Your task to perform on an android device: turn off sleep mode Image 0: 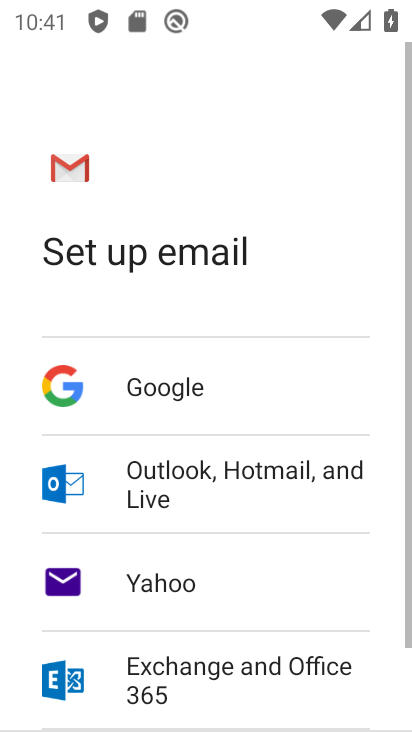
Step 0: press home button
Your task to perform on an android device: turn off sleep mode Image 1: 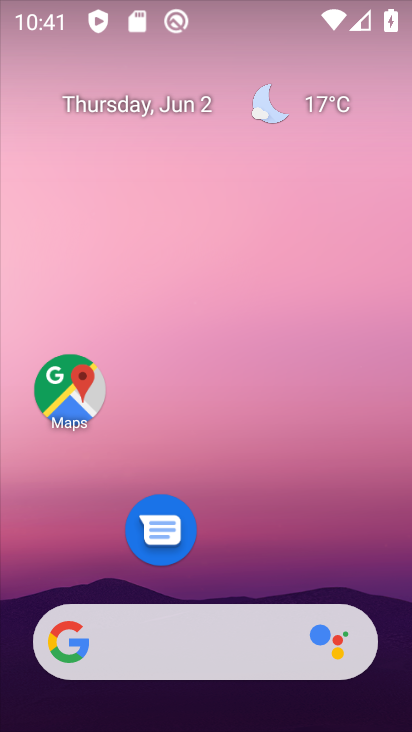
Step 1: drag from (210, 685) to (153, 175)
Your task to perform on an android device: turn off sleep mode Image 2: 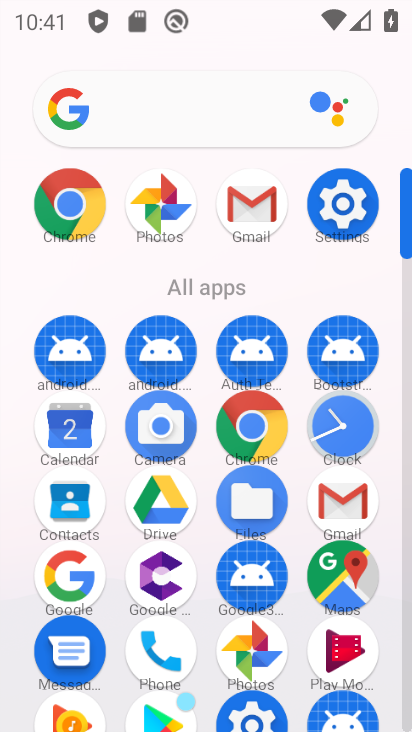
Step 2: drag from (293, 441) to (290, 305)
Your task to perform on an android device: turn off sleep mode Image 3: 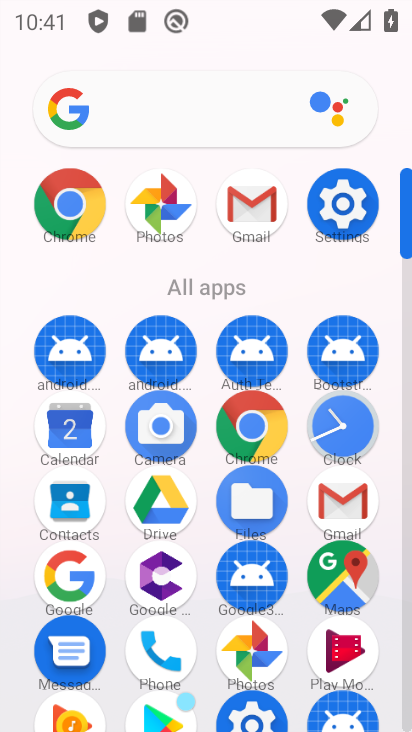
Step 3: drag from (297, 465) to (298, 194)
Your task to perform on an android device: turn off sleep mode Image 4: 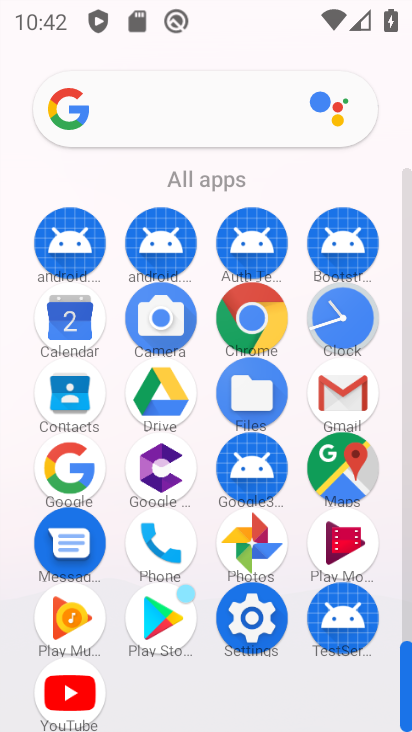
Step 4: click (247, 622)
Your task to perform on an android device: turn off sleep mode Image 5: 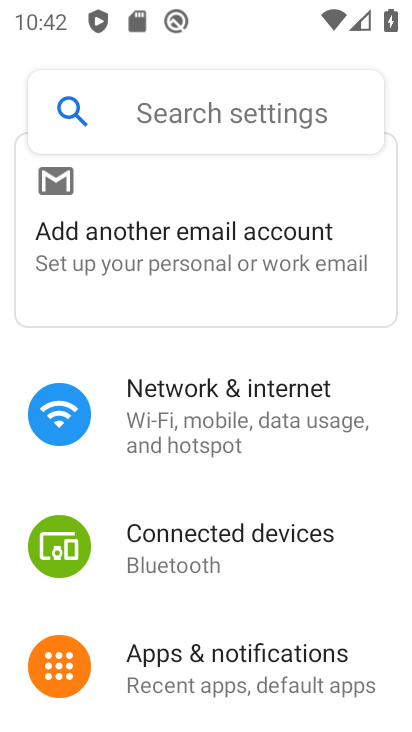
Step 5: drag from (268, 597) to (248, 327)
Your task to perform on an android device: turn off sleep mode Image 6: 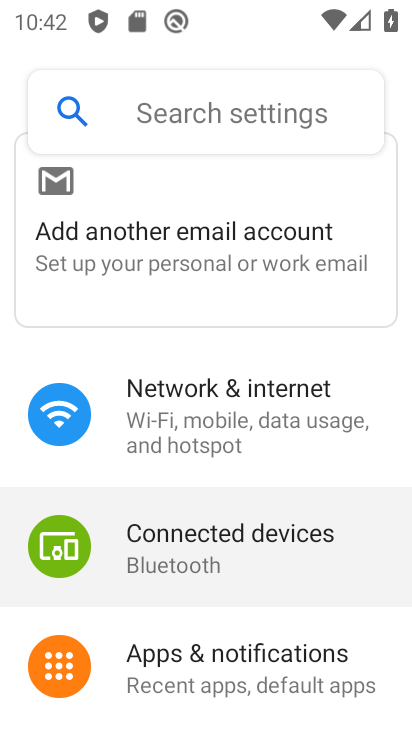
Step 6: drag from (249, 595) to (251, 300)
Your task to perform on an android device: turn off sleep mode Image 7: 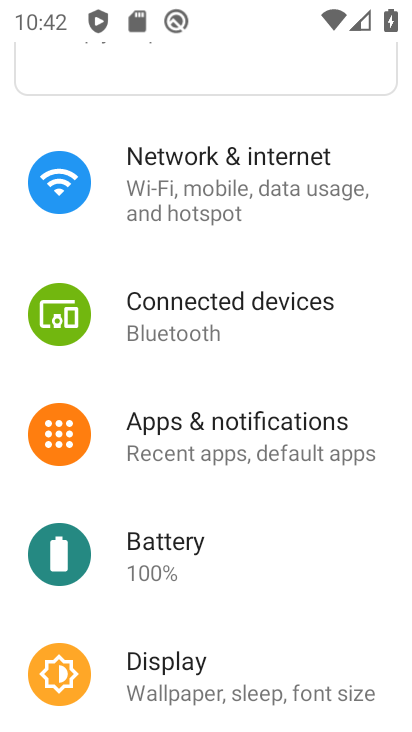
Step 7: drag from (232, 584) to (232, 298)
Your task to perform on an android device: turn off sleep mode Image 8: 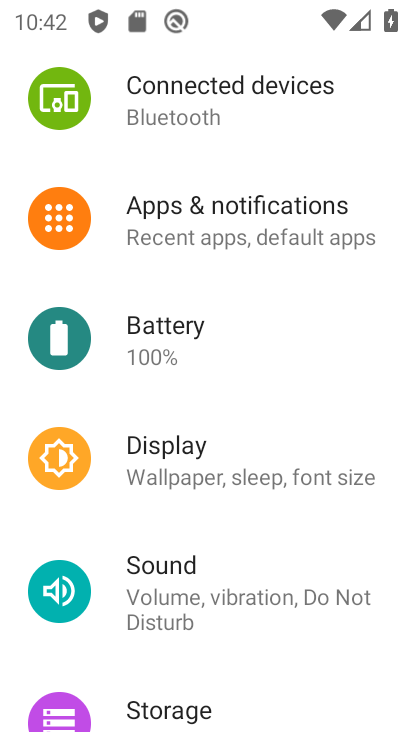
Step 8: drag from (232, 507) to (219, 234)
Your task to perform on an android device: turn off sleep mode Image 9: 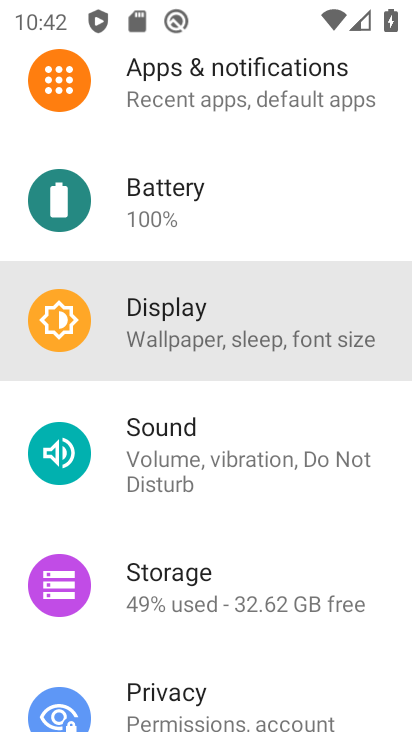
Step 9: drag from (200, 382) to (212, 151)
Your task to perform on an android device: turn off sleep mode Image 10: 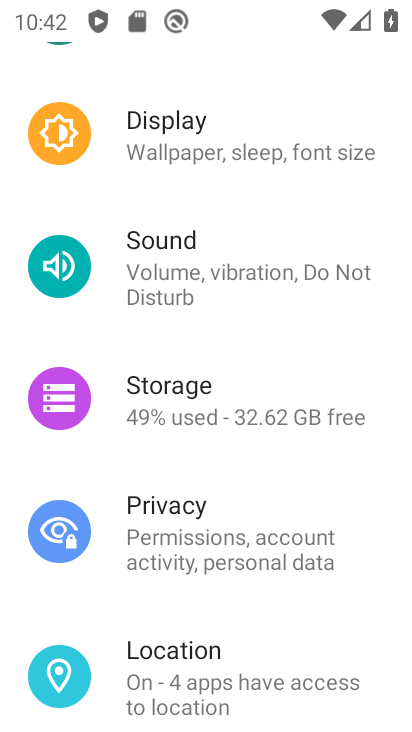
Step 10: drag from (233, 461) to (278, 148)
Your task to perform on an android device: turn off sleep mode Image 11: 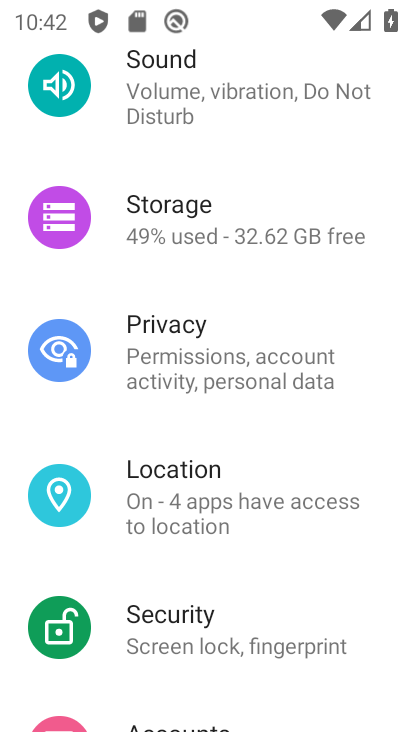
Step 11: drag from (230, 410) to (245, 183)
Your task to perform on an android device: turn off sleep mode Image 12: 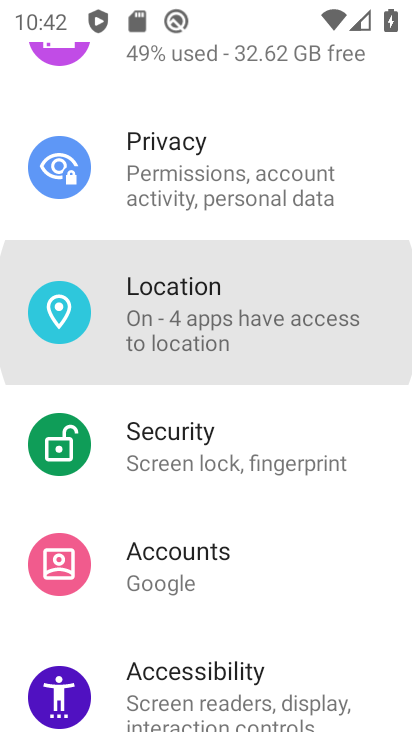
Step 12: drag from (246, 437) to (261, 165)
Your task to perform on an android device: turn off sleep mode Image 13: 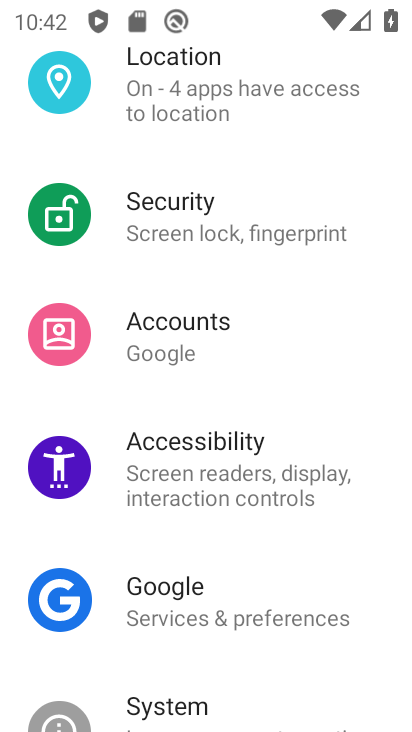
Step 13: drag from (218, 441) to (243, 231)
Your task to perform on an android device: turn off sleep mode Image 14: 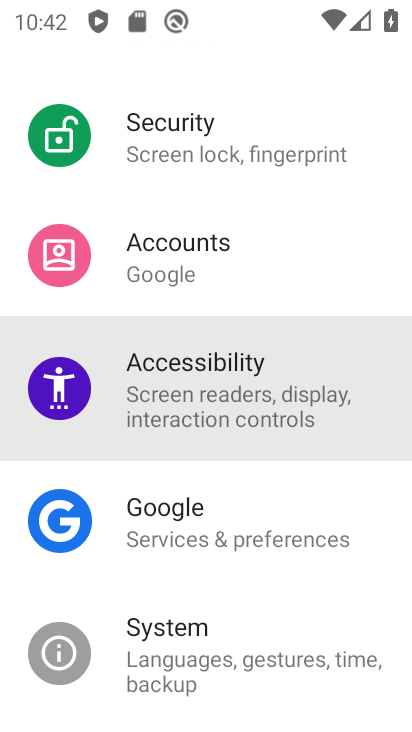
Step 14: drag from (232, 565) to (232, 244)
Your task to perform on an android device: turn off sleep mode Image 15: 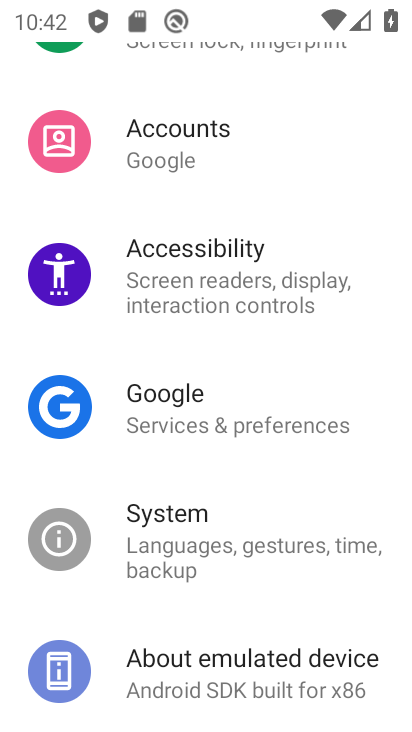
Step 15: drag from (195, 228) to (234, 500)
Your task to perform on an android device: turn off sleep mode Image 16: 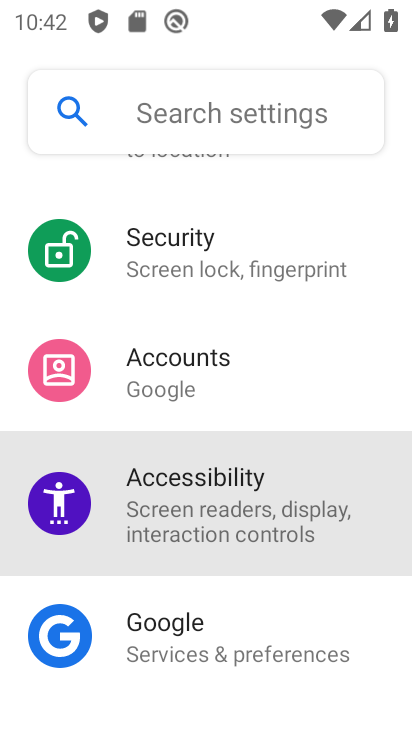
Step 16: drag from (217, 456) to (237, 579)
Your task to perform on an android device: turn off sleep mode Image 17: 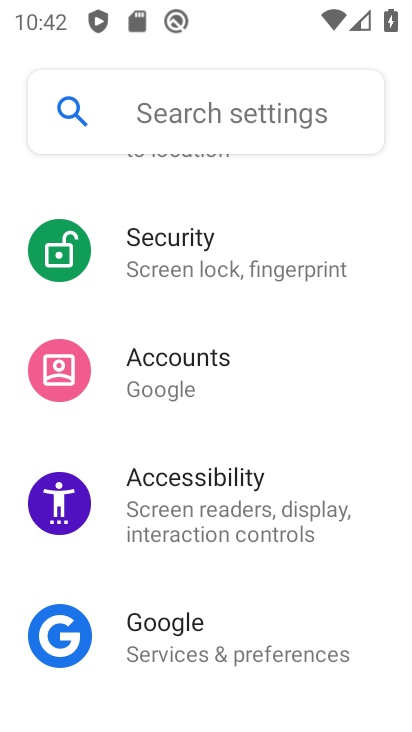
Step 17: drag from (185, 304) to (217, 506)
Your task to perform on an android device: turn off sleep mode Image 18: 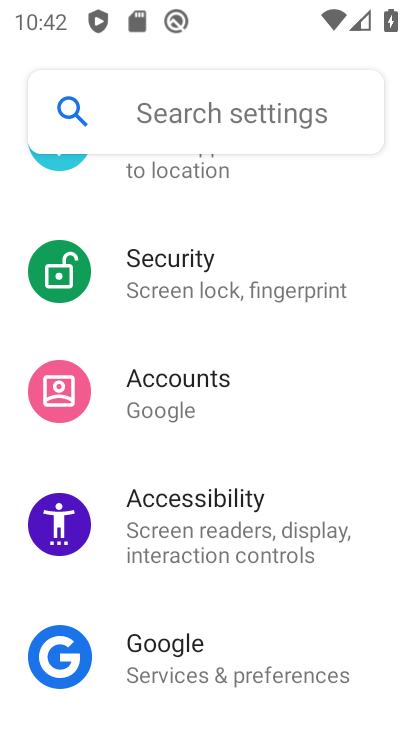
Step 18: drag from (197, 364) to (226, 561)
Your task to perform on an android device: turn off sleep mode Image 19: 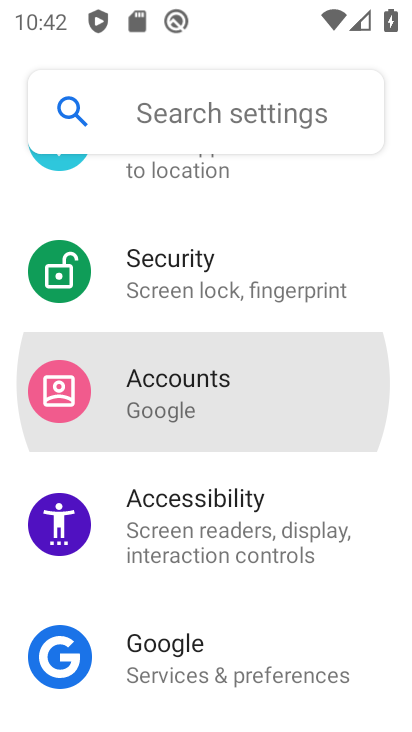
Step 19: drag from (200, 361) to (205, 568)
Your task to perform on an android device: turn off sleep mode Image 20: 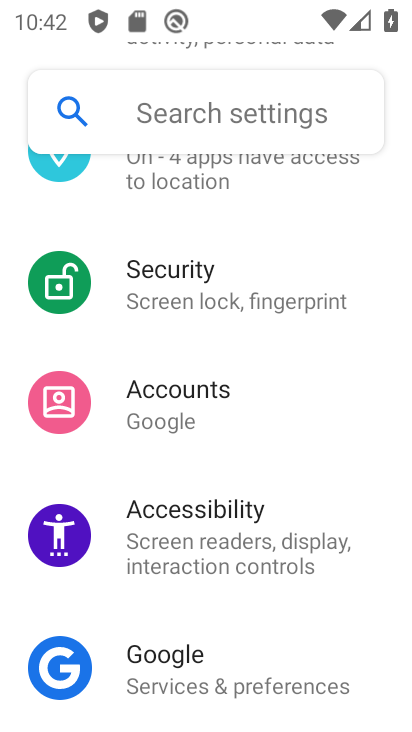
Step 20: drag from (161, 385) to (201, 655)
Your task to perform on an android device: turn off sleep mode Image 21: 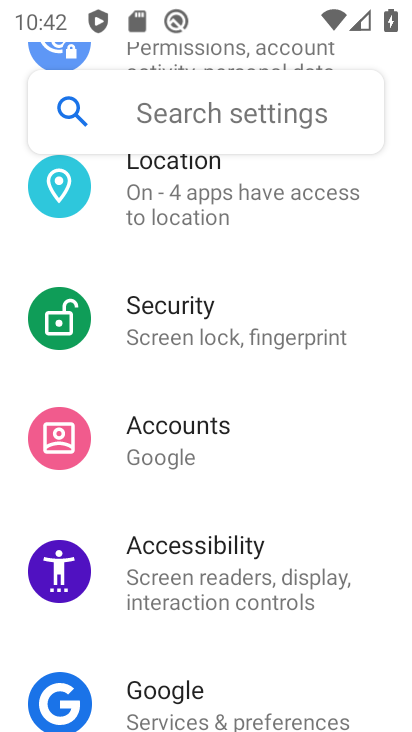
Step 21: drag from (216, 419) to (265, 641)
Your task to perform on an android device: turn off sleep mode Image 22: 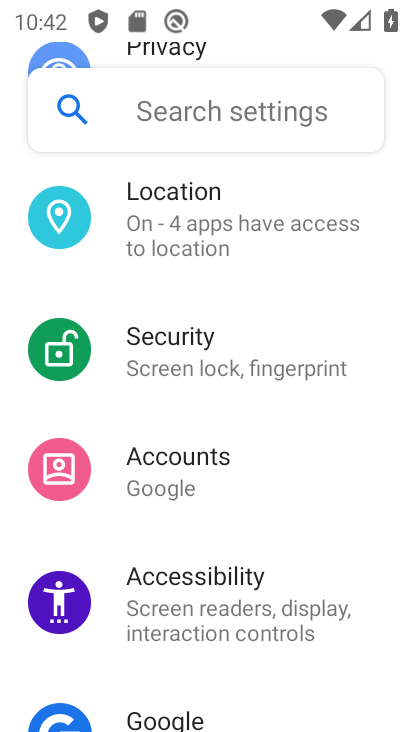
Step 22: drag from (268, 333) to (305, 578)
Your task to perform on an android device: turn off sleep mode Image 23: 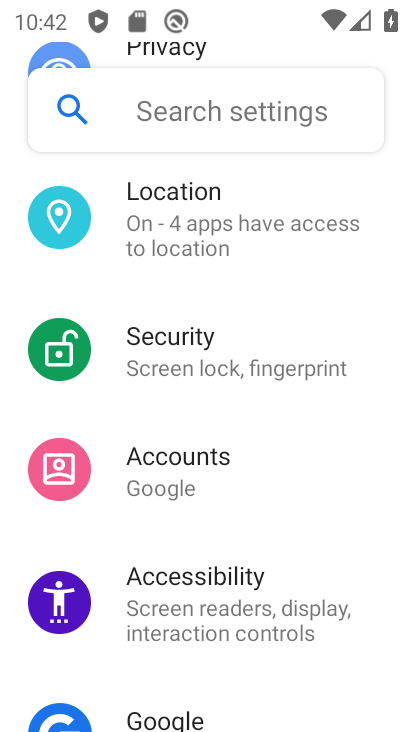
Step 23: drag from (295, 331) to (333, 603)
Your task to perform on an android device: turn off sleep mode Image 24: 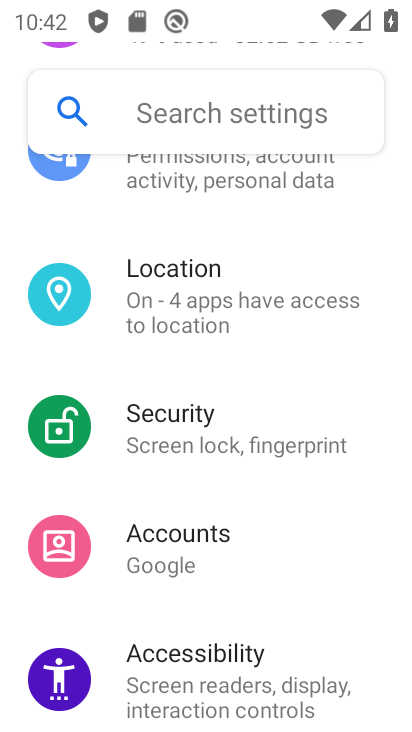
Step 24: drag from (252, 336) to (266, 642)
Your task to perform on an android device: turn off sleep mode Image 25: 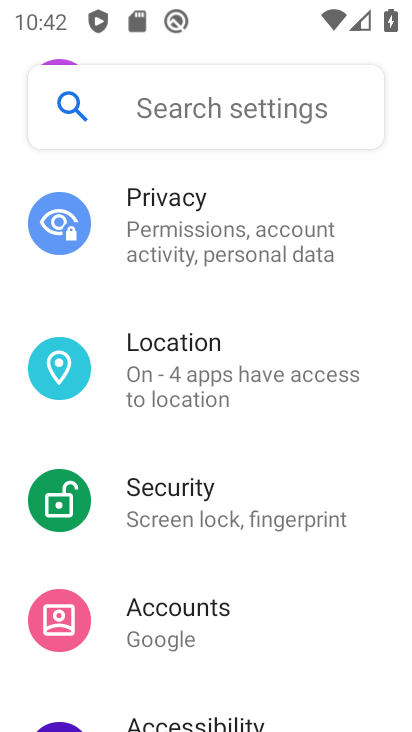
Step 25: drag from (242, 402) to (281, 620)
Your task to perform on an android device: turn off sleep mode Image 26: 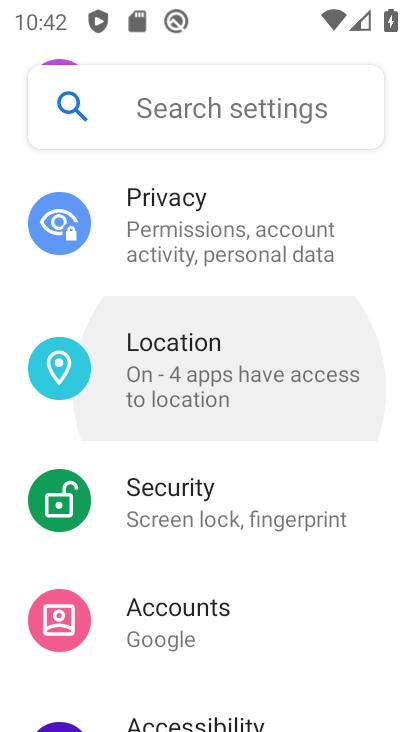
Step 26: drag from (282, 289) to (332, 614)
Your task to perform on an android device: turn off sleep mode Image 27: 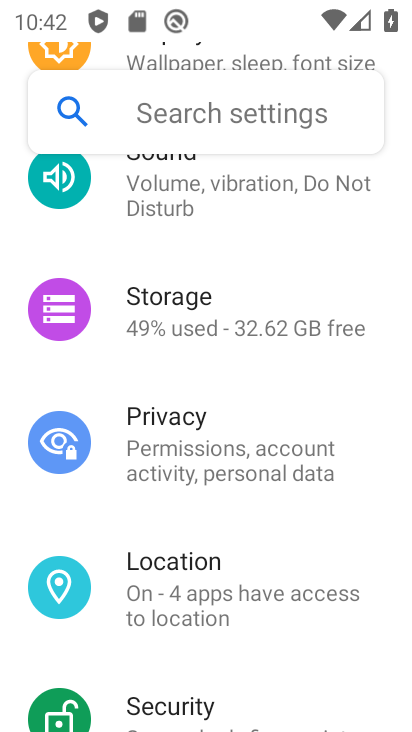
Step 27: drag from (250, 352) to (273, 492)
Your task to perform on an android device: turn off sleep mode Image 28: 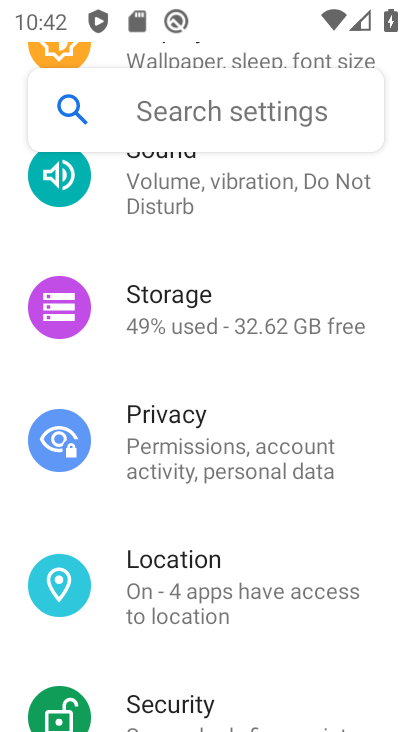
Step 28: drag from (236, 284) to (269, 542)
Your task to perform on an android device: turn off sleep mode Image 29: 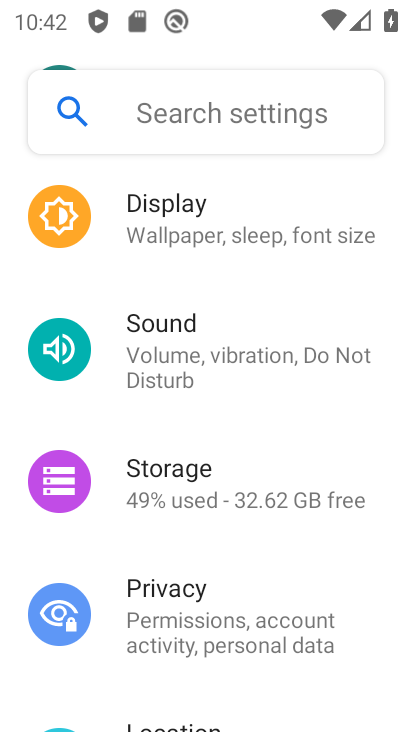
Step 29: drag from (222, 220) to (262, 492)
Your task to perform on an android device: turn off sleep mode Image 30: 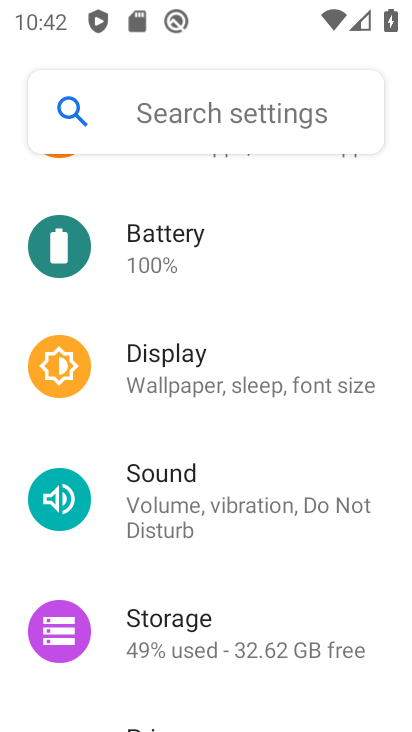
Step 30: drag from (271, 291) to (310, 556)
Your task to perform on an android device: turn off sleep mode Image 31: 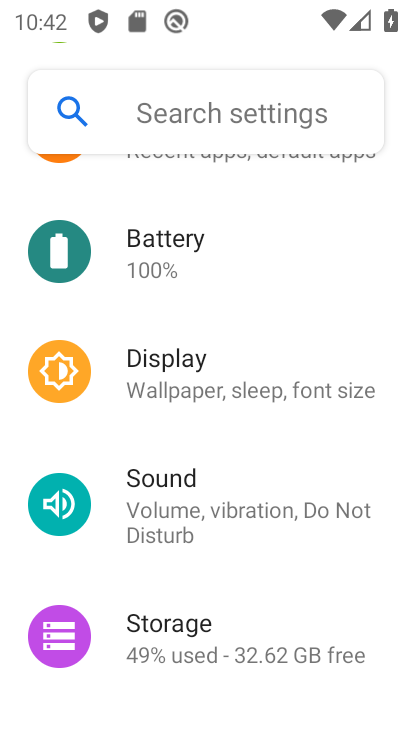
Step 31: click (279, 558)
Your task to perform on an android device: turn off sleep mode Image 32: 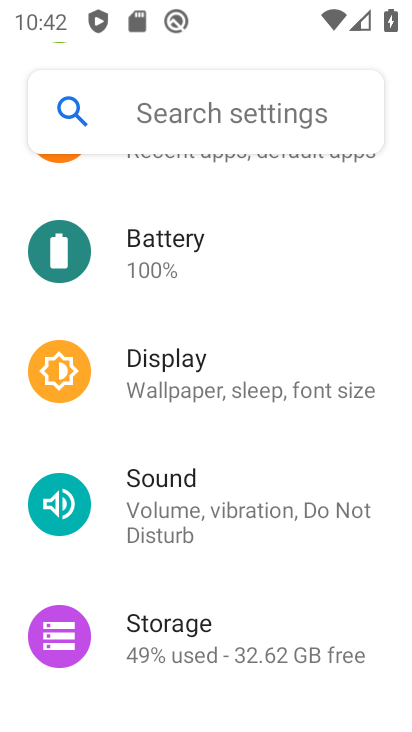
Step 32: drag from (233, 289) to (265, 569)
Your task to perform on an android device: turn off sleep mode Image 33: 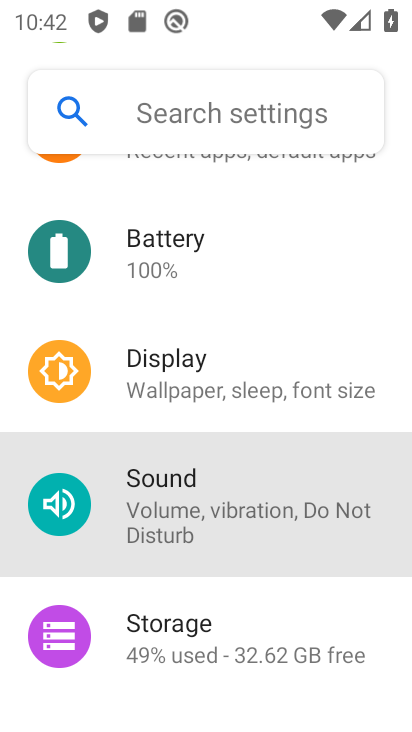
Step 33: drag from (198, 302) to (158, 590)
Your task to perform on an android device: turn off sleep mode Image 34: 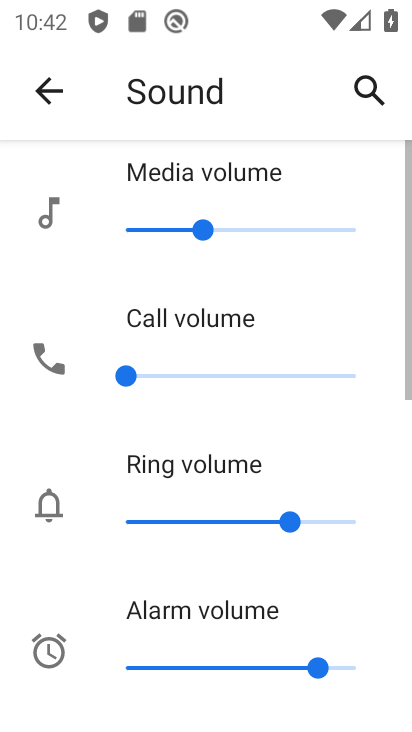
Step 34: click (207, 392)
Your task to perform on an android device: turn off sleep mode Image 35: 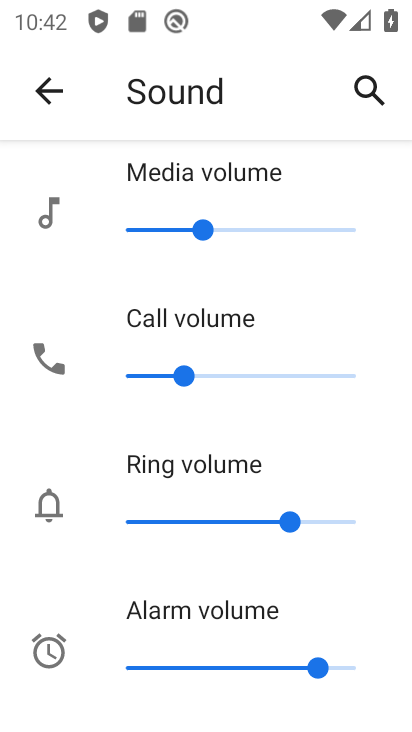
Step 35: click (44, 91)
Your task to perform on an android device: turn off sleep mode Image 36: 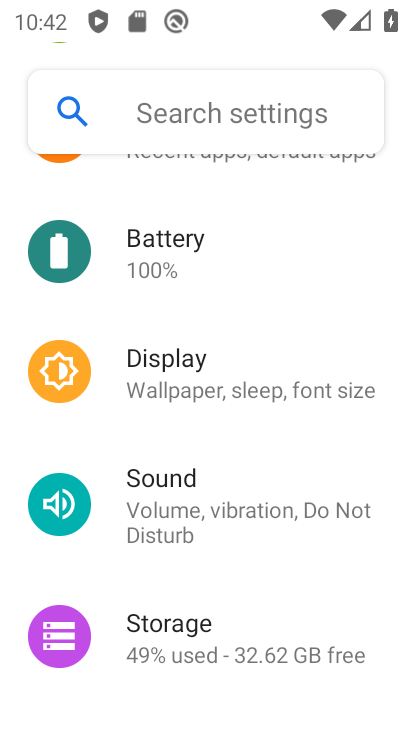
Step 36: click (242, 375)
Your task to perform on an android device: turn off sleep mode Image 37: 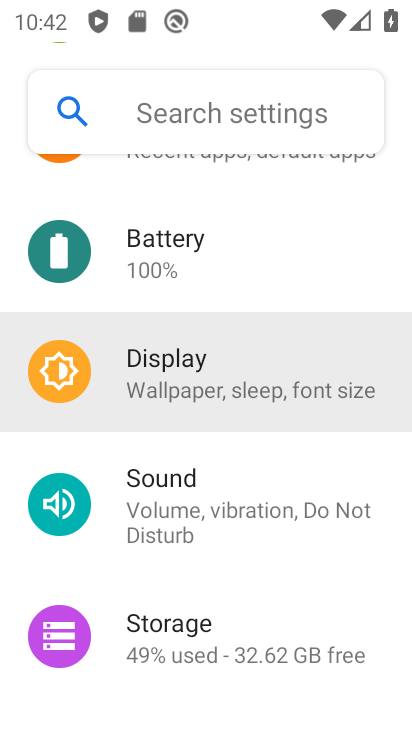
Step 37: click (242, 383)
Your task to perform on an android device: turn off sleep mode Image 38: 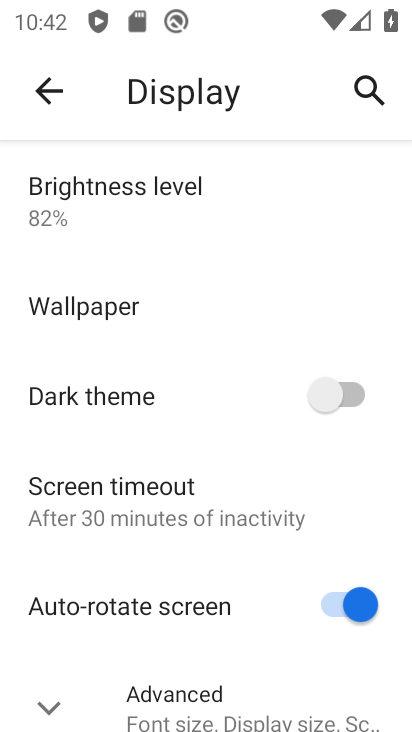
Step 38: task complete